Your task to perform on an android device: turn on showing notifications on the lock screen Image 0: 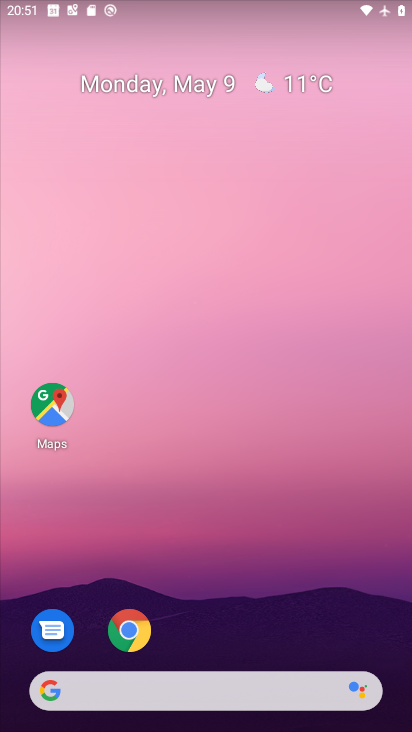
Step 0: drag from (214, 621) to (255, 106)
Your task to perform on an android device: turn on showing notifications on the lock screen Image 1: 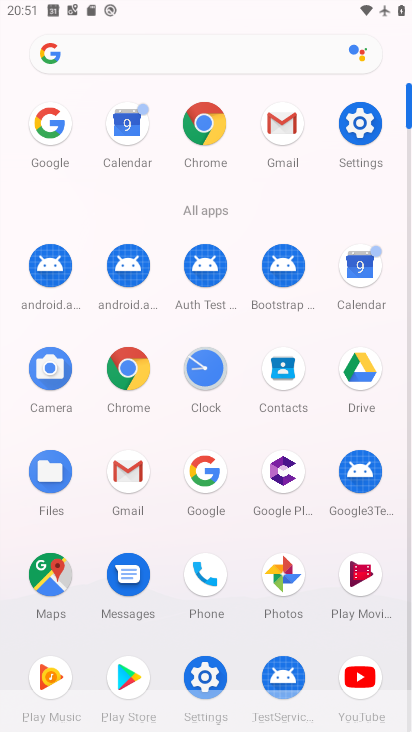
Step 1: click (206, 665)
Your task to perform on an android device: turn on showing notifications on the lock screen Image 2: 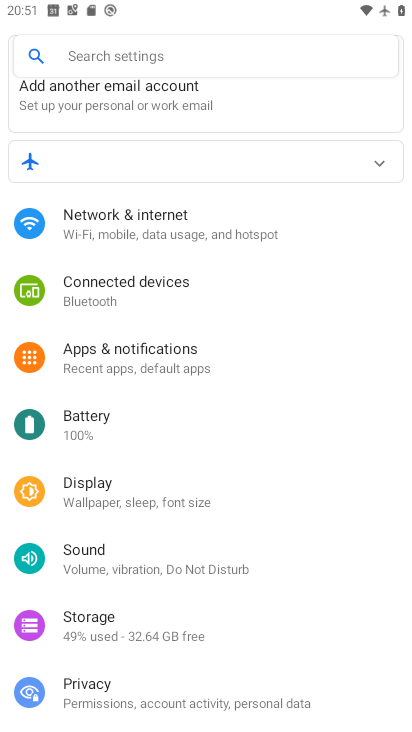
Step 2: click (204, 367)
Your task to perform on an android device: turn on showing notifications on the lock screen Image 3: 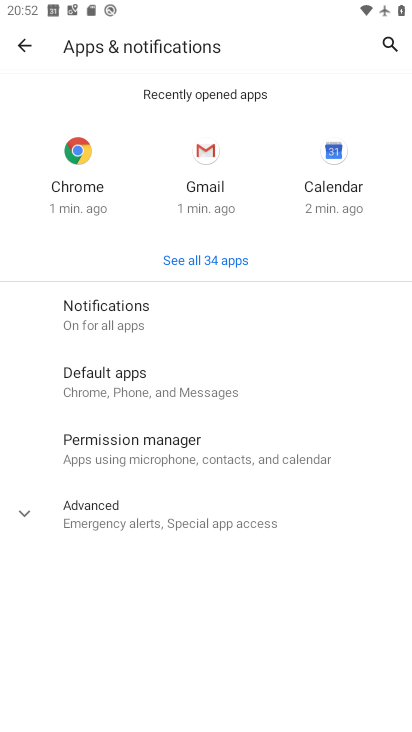
Step 3: click (161, 321)
Your task to perform on an android device: turn on showing notifications on the lock screen Image 4: 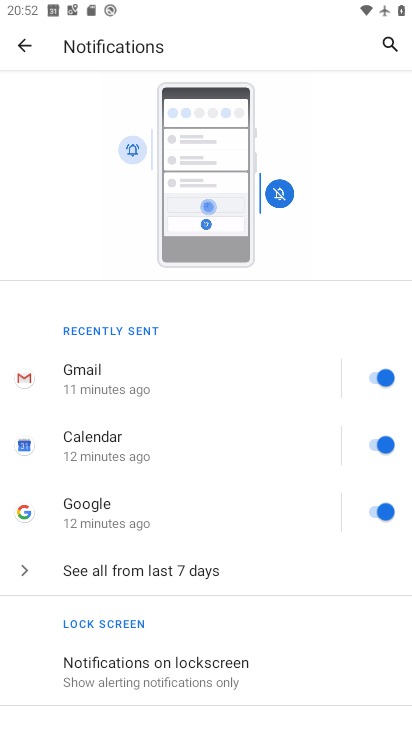
Step 4: click (214, 673)
Your task to perform on an android device: turn on showing notifications on the lock screen Image 5: 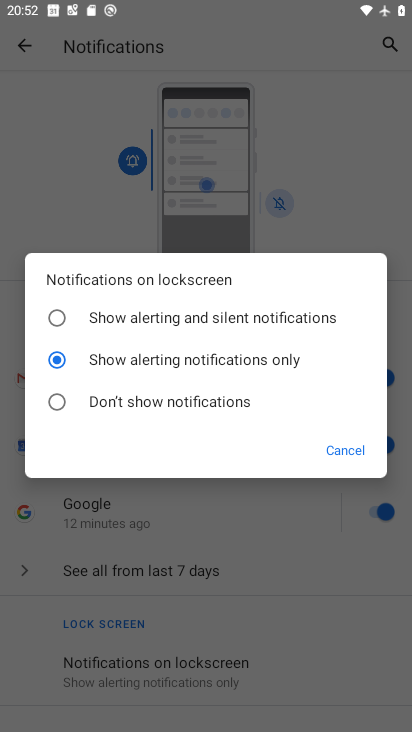
Step 5: click (221, 319)
Your task to perform on an android device: turn on showing notifications on the lock screen Image 6: 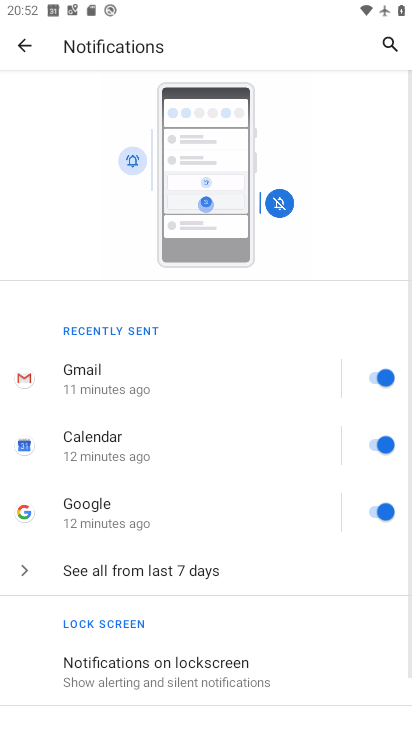
Step 6: task complete